Your task to perform on an android device: turn on location history Image 0: 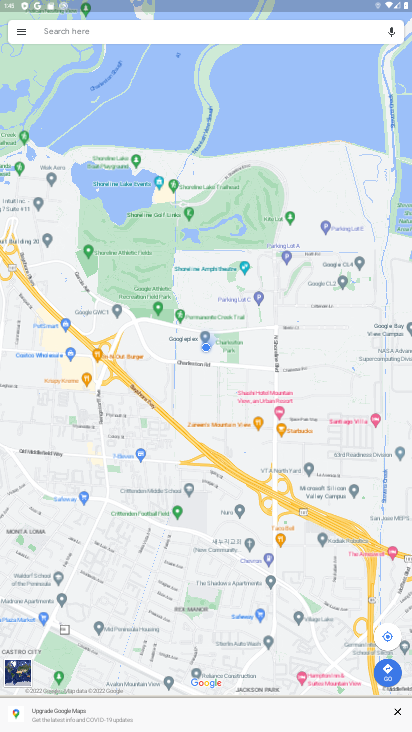
Step 0: press home button
Your task to perform on an android device: turn on location history Image 1: 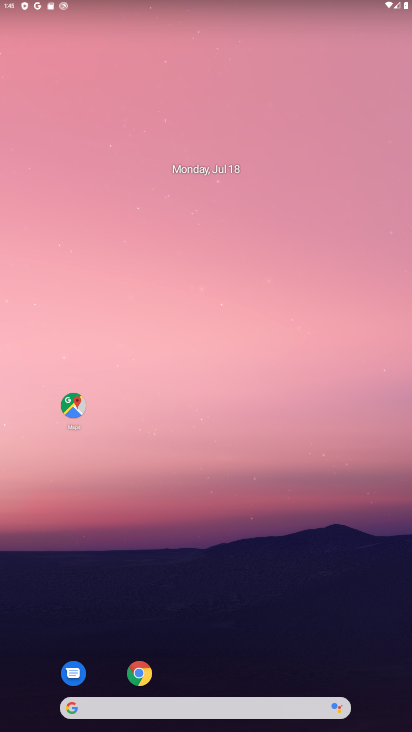
Step 1: drag from (206, 705) to (357, 211)
Your task to perform on an android device: turn on location history Image 2: 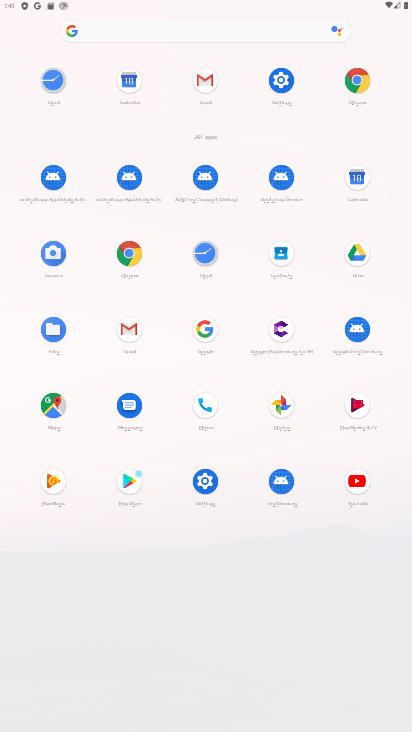
Step 2: click (280, 81)
Your task to perform on an android device: turn on location history Image 3: 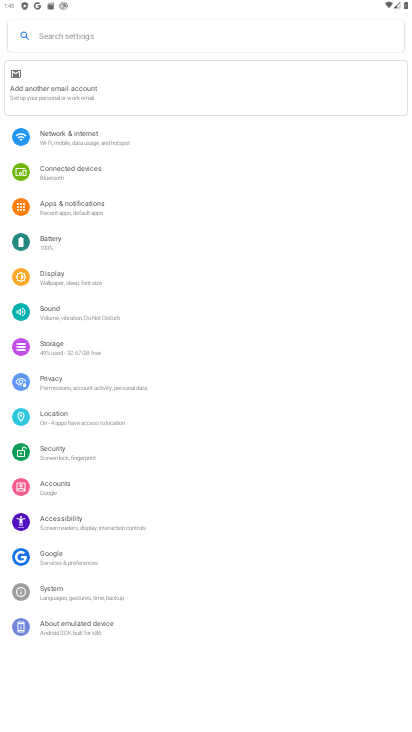
Step 3: click (79, 422)
Your task to perform on an android device: turn on location history Image 4: 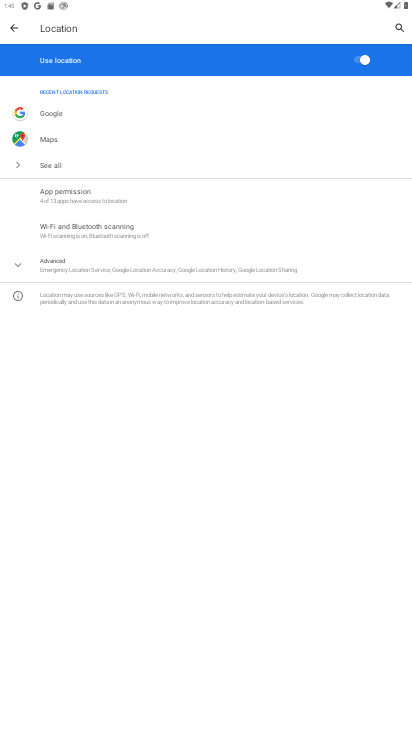
Step 4: click (119, 269)
Your task to perform on an android device: turn on location history Image 5: 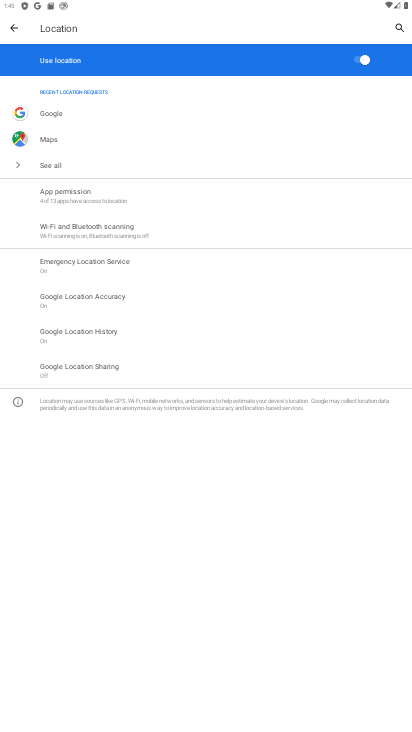
Step 5: click (117, 334)
Your task to perform on an android device: turn on location history Image 6: 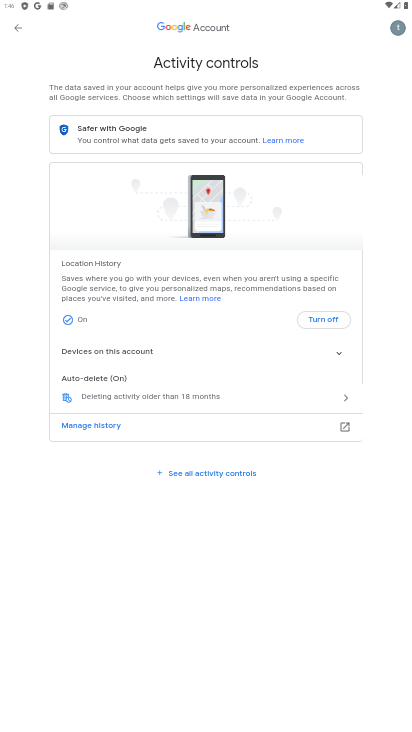
Step 6: task complete